Your task to perform on an android device: Open eBay Image 0: 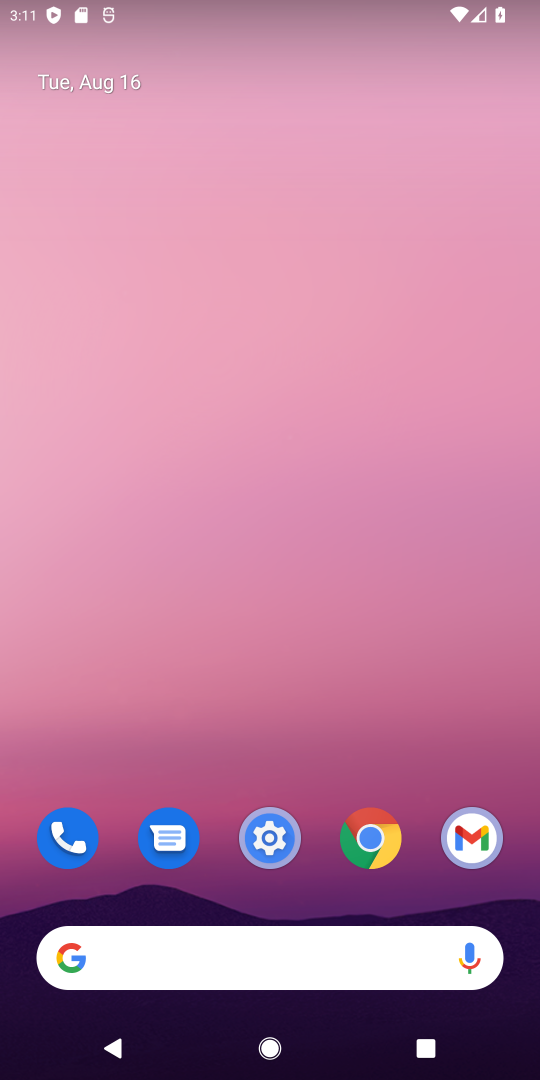
Step 0: click (358, 837)
Your task to perform on an android device: Open eBay Image 1: 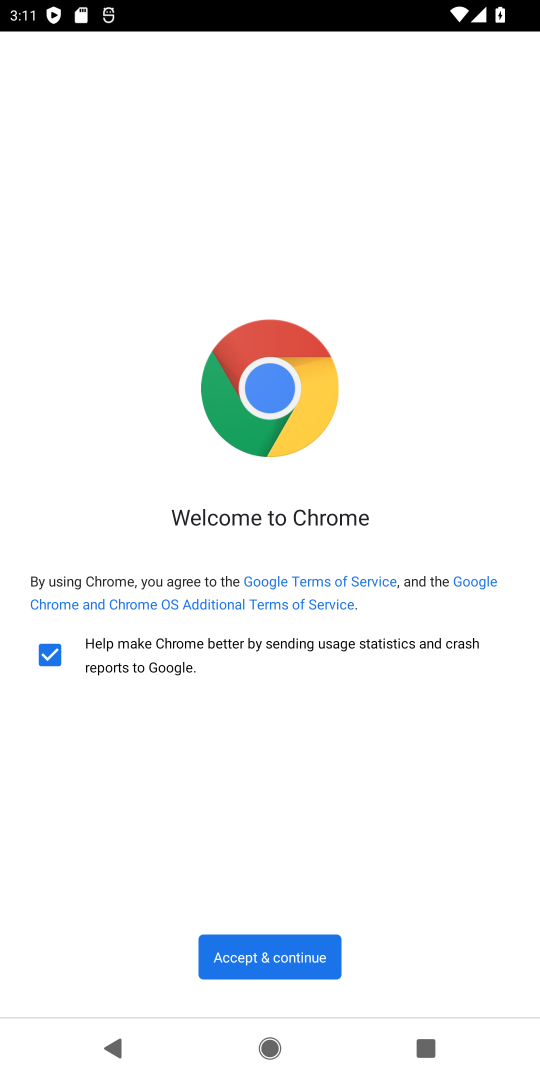
Step 1: click (306, 957)
Your task to perform on an android device: Open eBay Image 2: 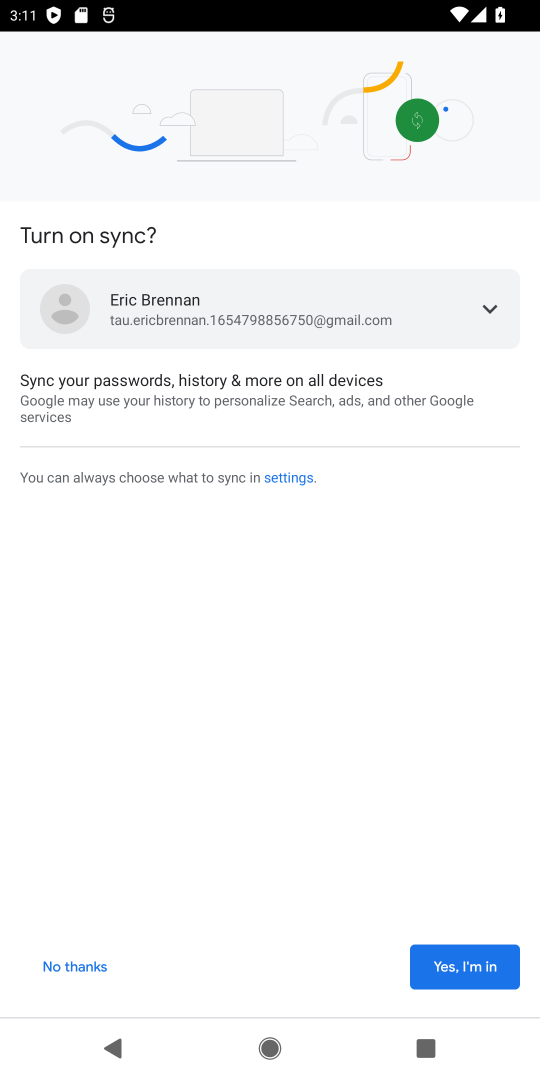
Step 2: click (431, 957)
Your task to perform on an android device: Open eBay Image 3: 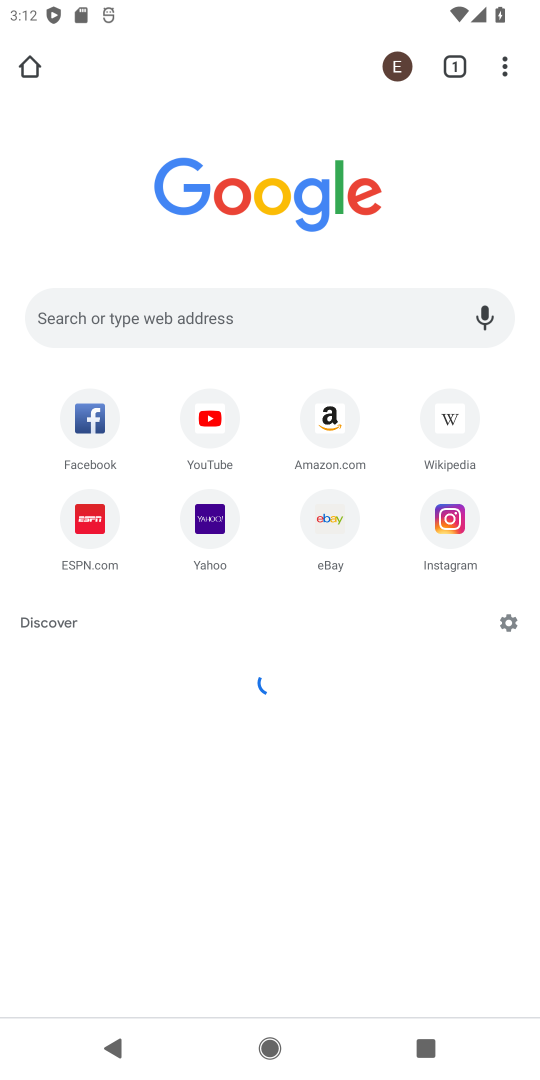
Step 3: click (323, 529)
Your task to perform on an android device: Open eBay Image 4: 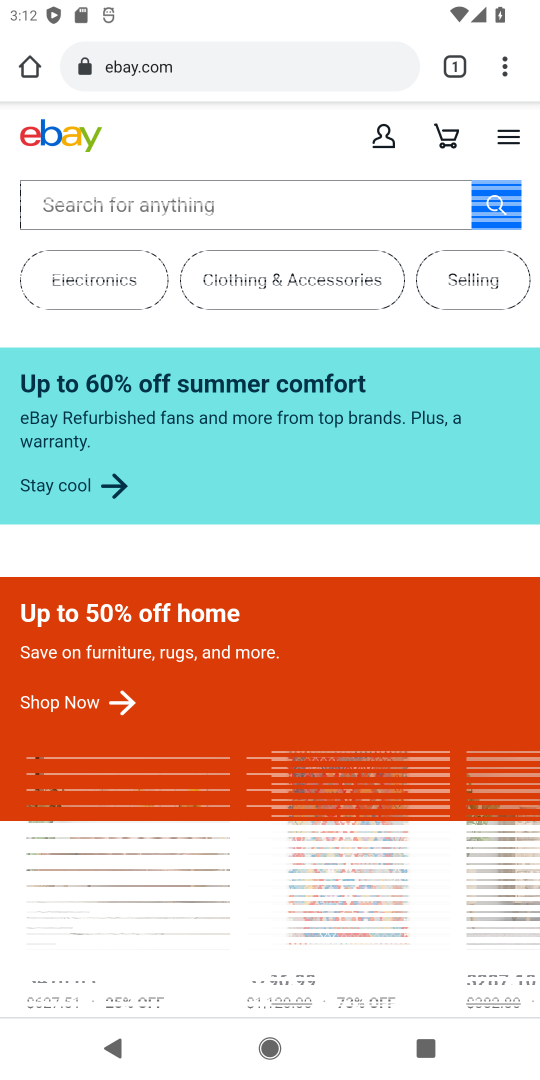
Step 4: task complete